Your task to perform on an android device: open wifi settings Image 0: 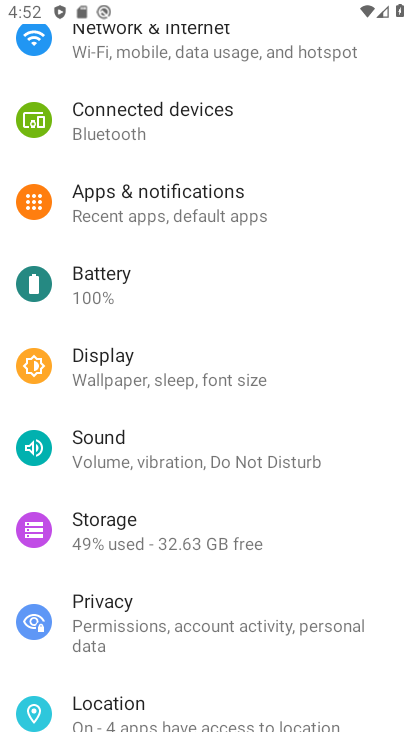
Step 0: press home button
Your task to perform on an android device: open wifi settings Image 1: 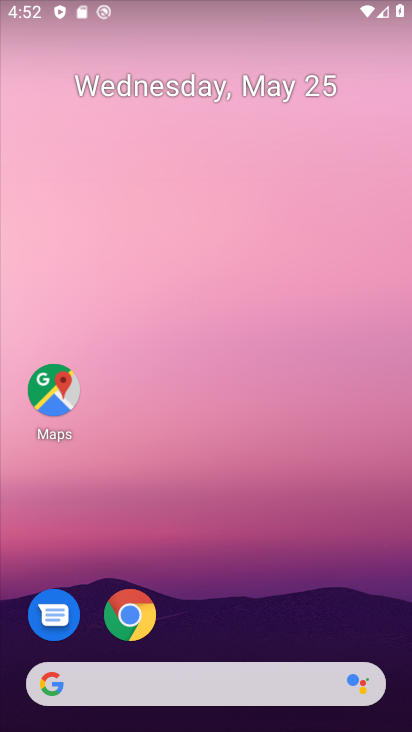
Step 1: drag from (286, 7) to (357, 594)
Your task to perform on an android device: open wifi settings Image 2: 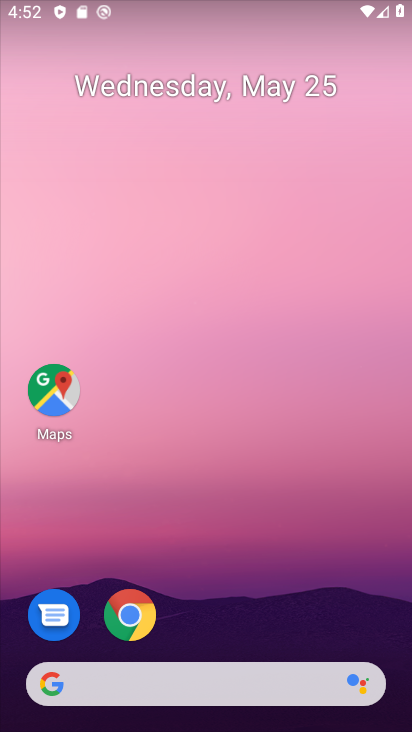
Step 2: drag from (234, 7) to (1, 499)
Your task to perform on an android device: open wifi settings Image 3: 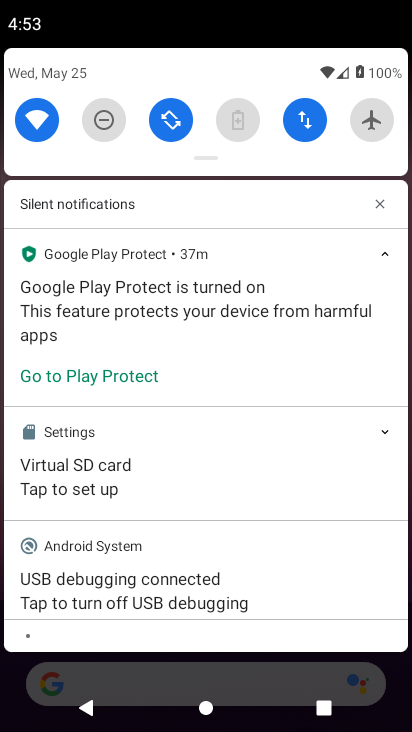
Step 3: click (35, 123)
Your task to perform on an android device: open wifi settings Image 4: 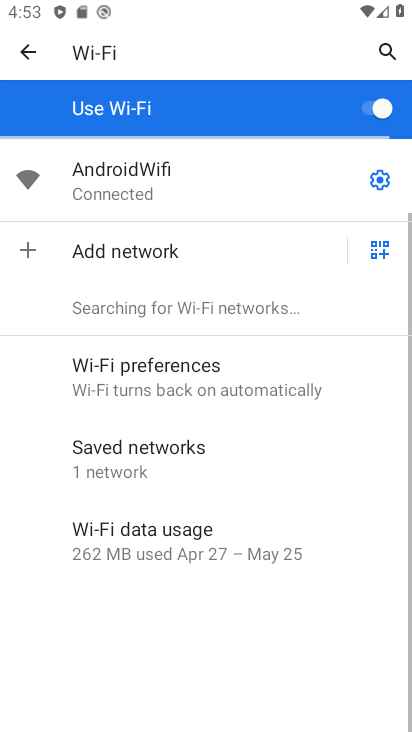
Step 4: task complete